Your task to perform on an android device: change the clock display to show seconds Image 0: 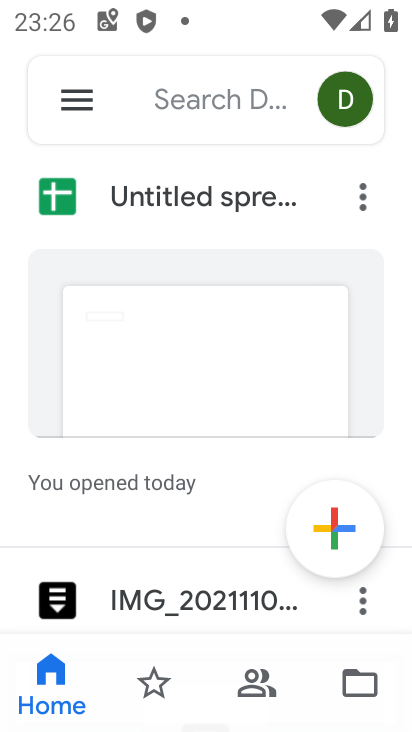
Step 0: press home button
Your task to perform on an android device: change the clock display to show seconds Image 1: 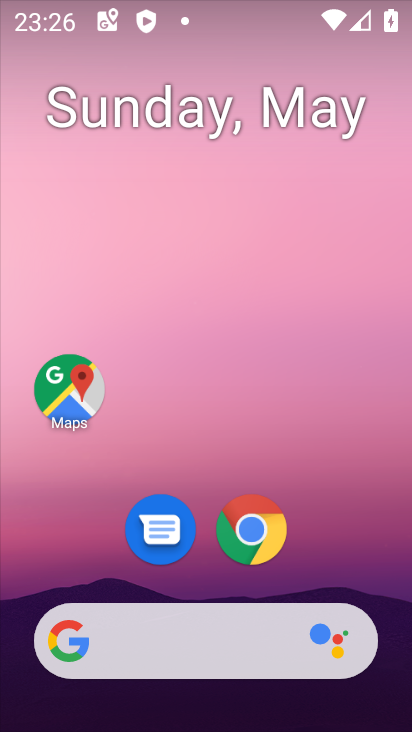
Step 1: drag from (357, 539) to (305, 93)
Your task to perform on an android device: change the clock display to show seconds Image 2: 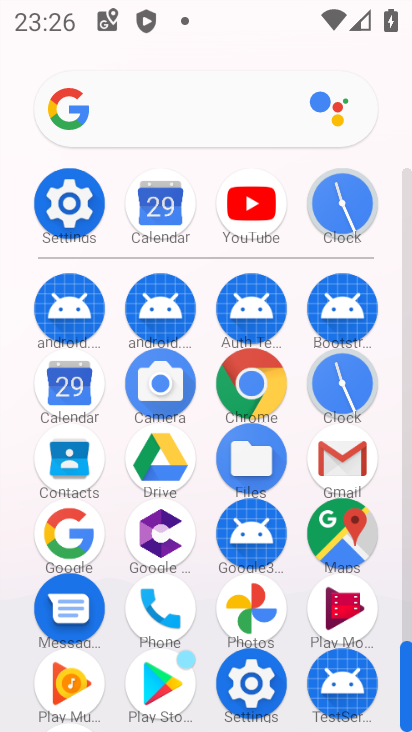
Step 2: click (340, 199)
Your task to perform on an android device: change the clock display to show seconds Image 3: 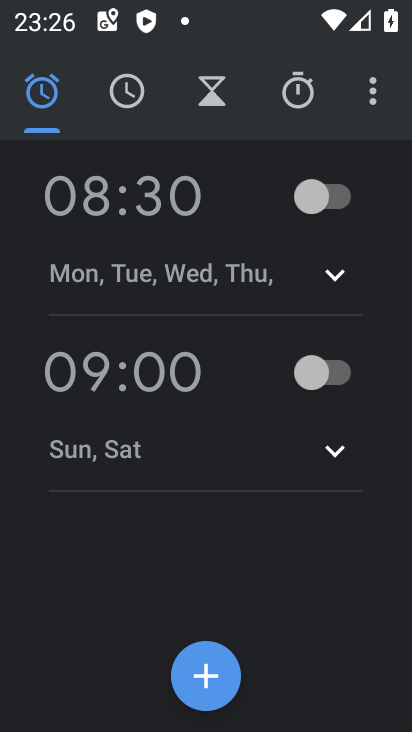
Step 3: click (360, 87)
Your task to perform on an android device: change the clock display to show seconds Image 4: 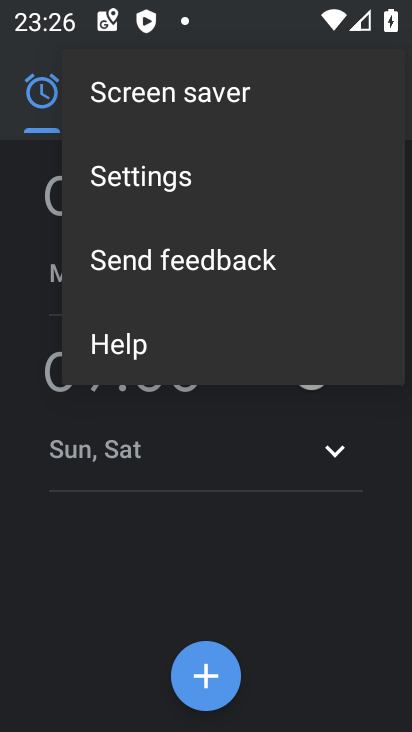
Step 4: click (151, 195)
Your task to perform on an android device: change the clock display to show seconds Image 5: 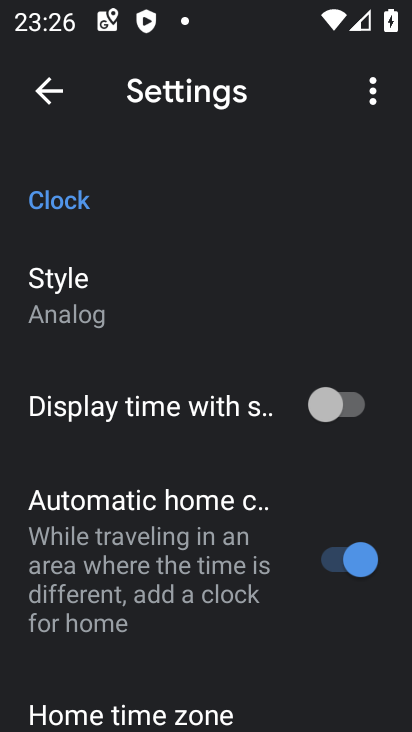
Step 5: drag from (158, 475) to (168, 284)
Your task to perform on an android device: change the clock display to show seconds Image 6: 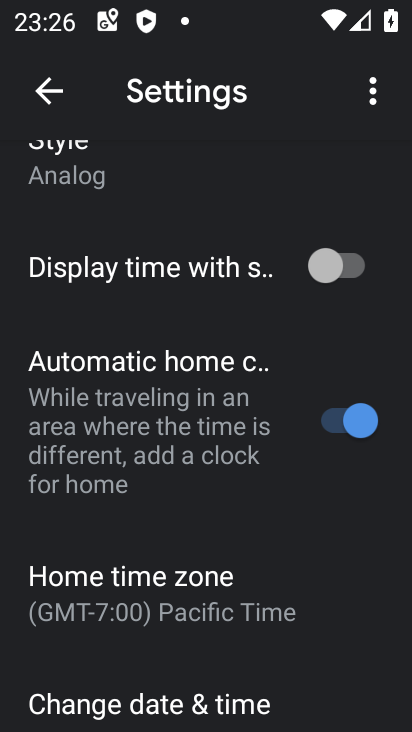
Step 6: click (286, 261)
Your task to perform on an android device: change the clock display to show seconds Image 7: 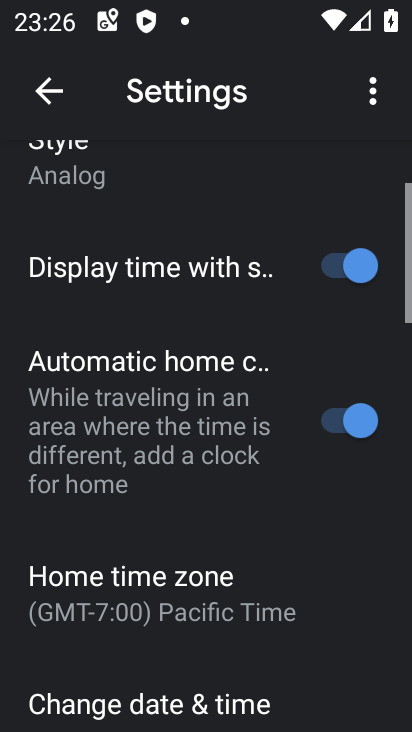
Step 7: task complete